Your task to perform on an android device: find photos in the google photos app Image 0: 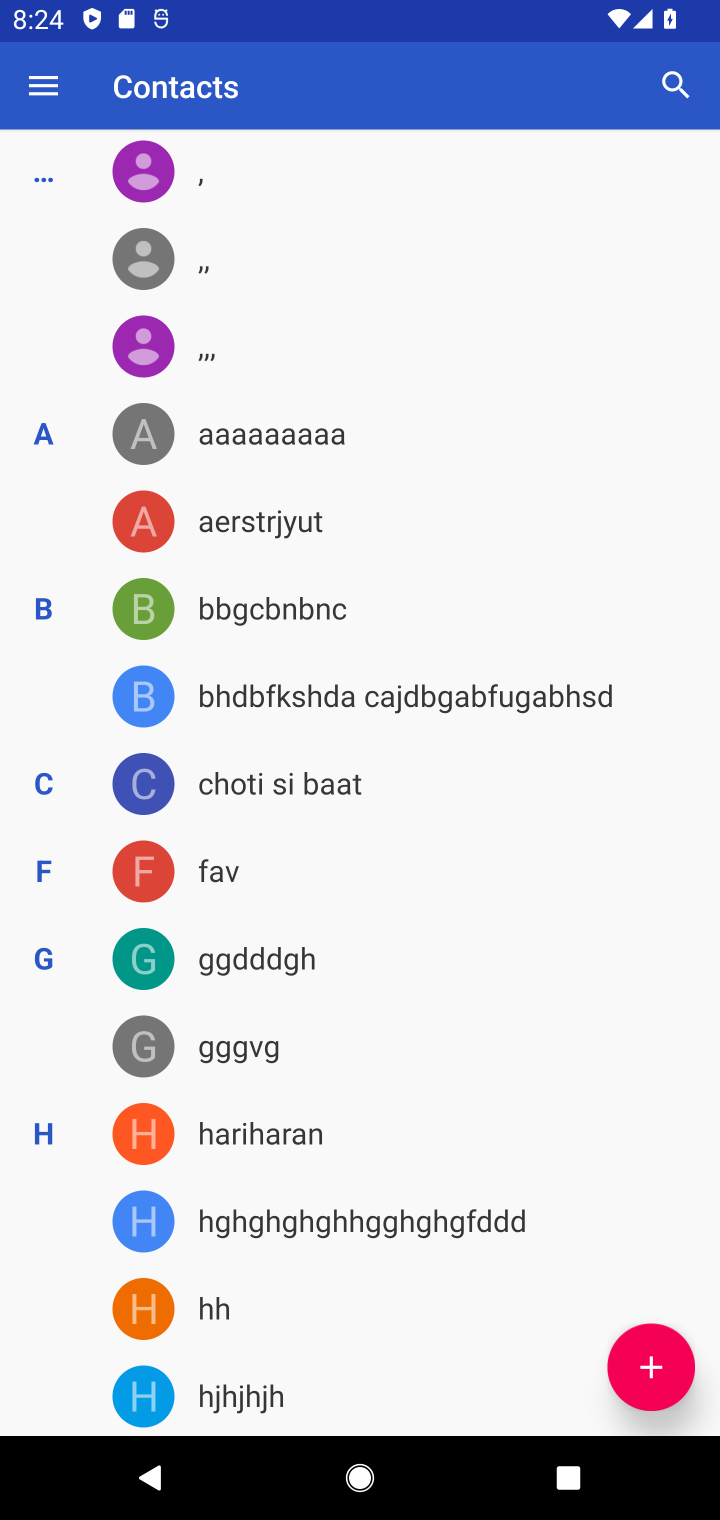
Step 0: press back button
Your task to perform on an android device: find photos in the google photos app Image 1: 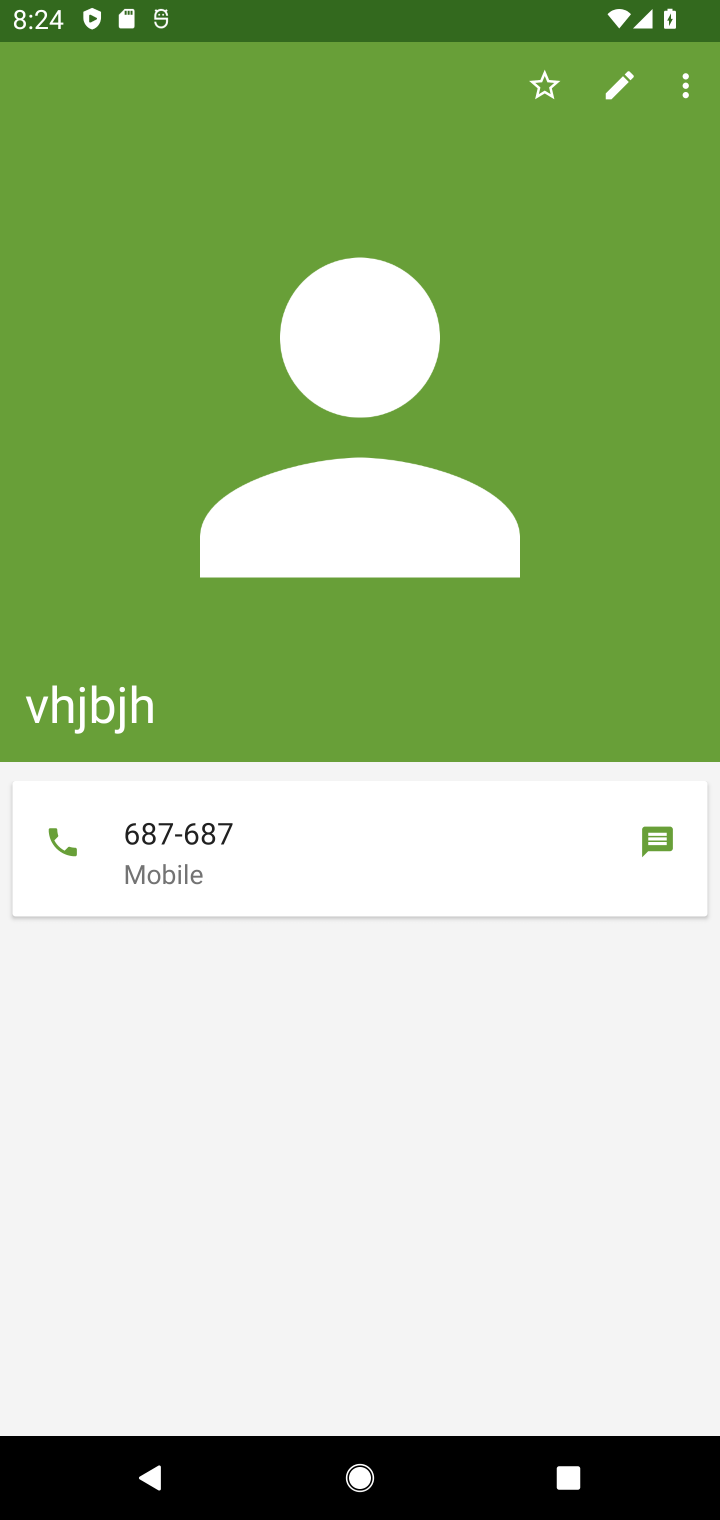
Step 1: press home button
Your task to perform on an android device: find photos in the google photos app Image 2: 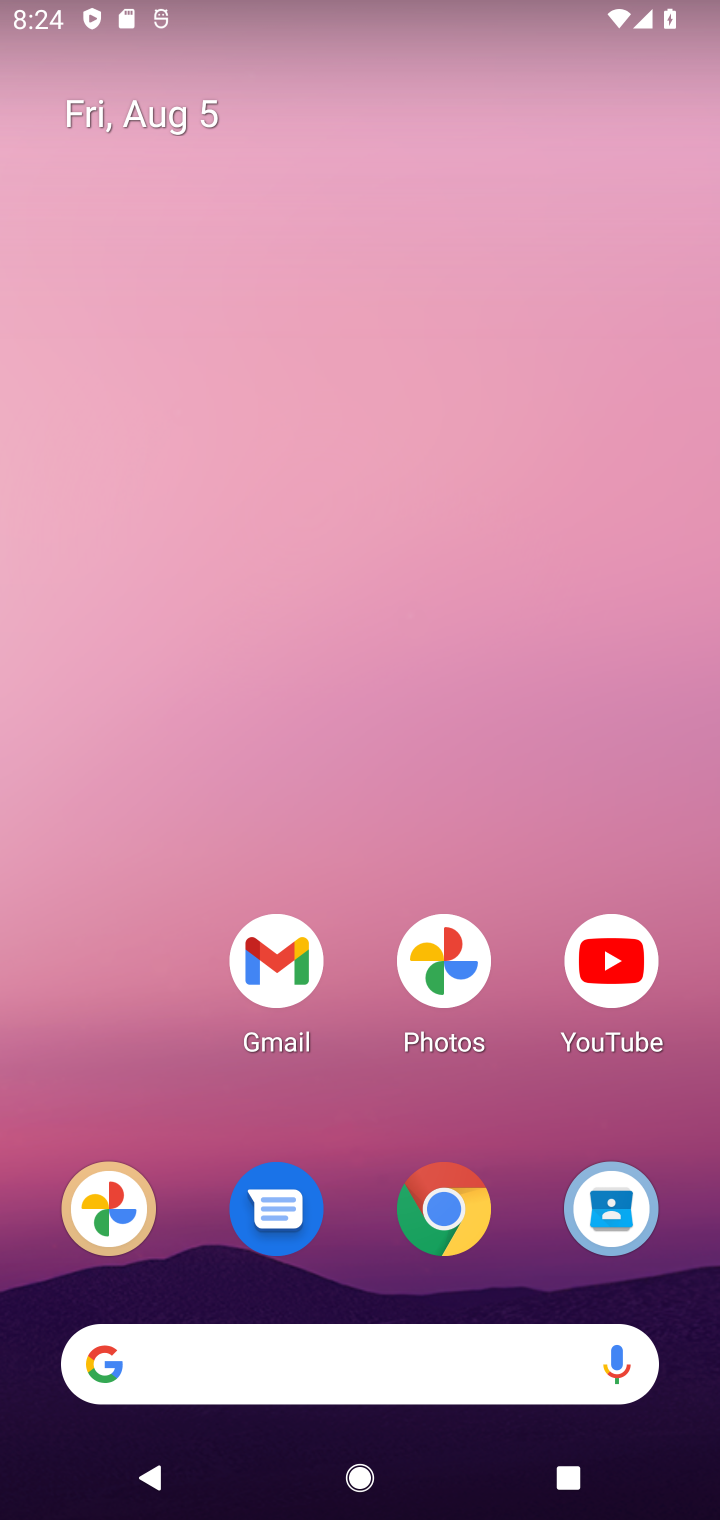
Step 2: click (446, 960)
Your task to perform on an android device: find photos in the google photos app Image 3: 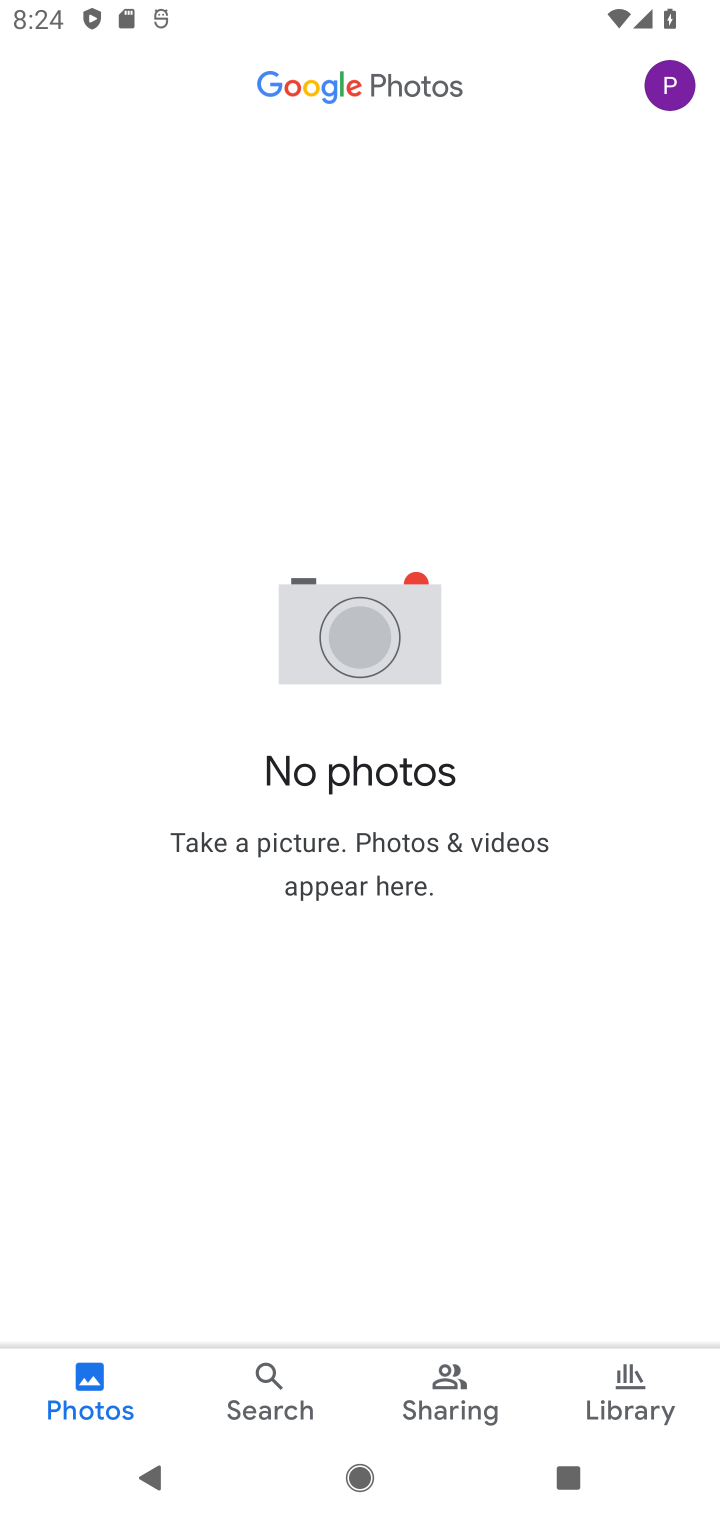
Step 3: task complete